Your task to perform on an android device: open app "Life360: Find Family & Friends" (install if not already installed) and enter user name: "gusts@gmail.com" and password: "assurers" Image 0: 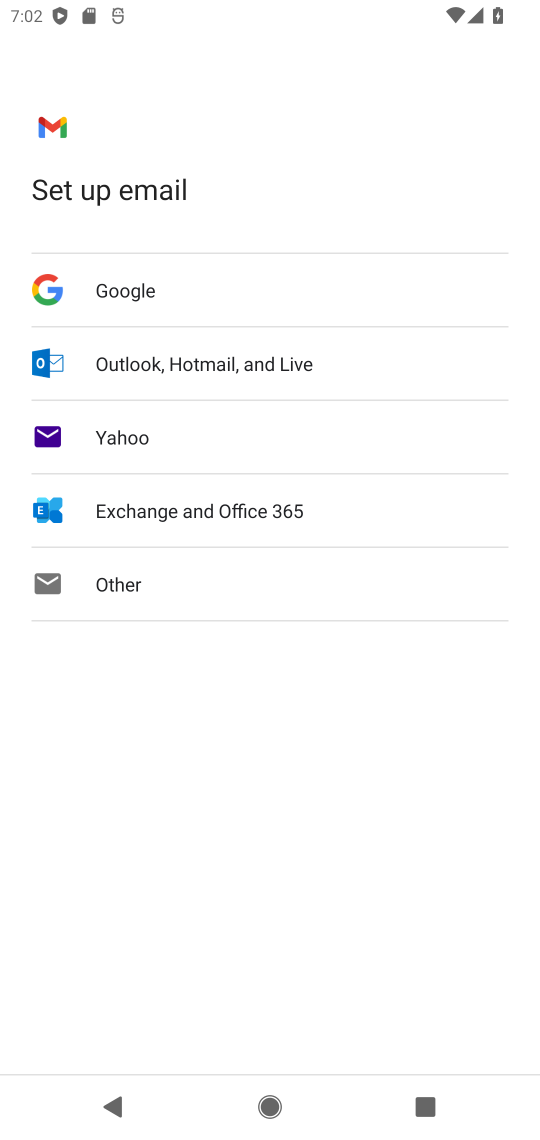
Step 0: press home button
Your task to perform on an android device: open app "Life360: Find Family & Friends" (install if not already installed) and enter user name: "gusts@gmail.com" and password: "assurers" Image 1: 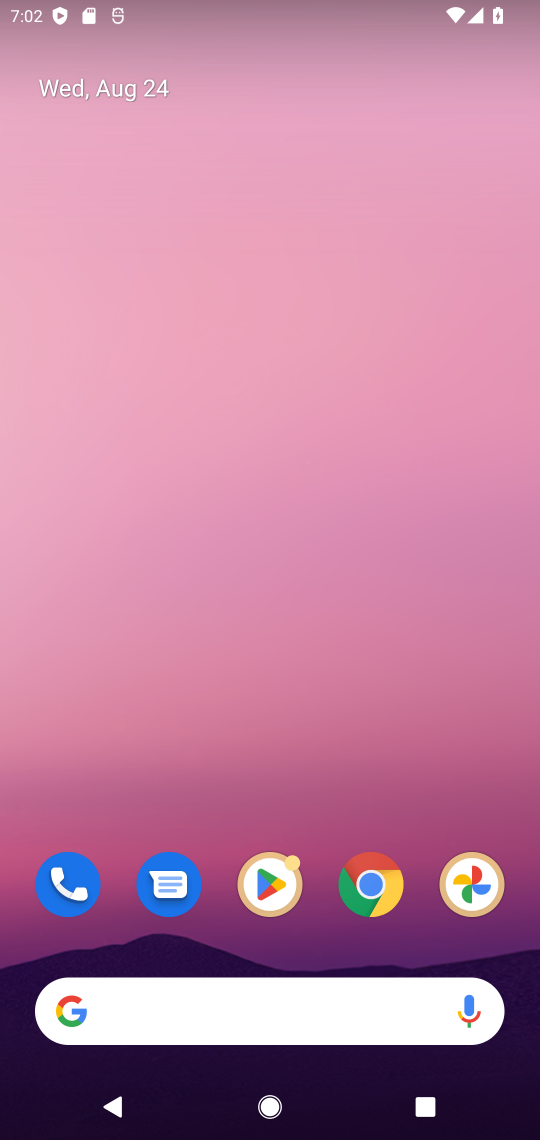
Step 1: click (282, 894)
Your task to perform on an android device: open app "Life360: Find Family & Friends" (install if not already installed) and enter user name: "gusts@gmail.com" and password: "assurers" Image 2: 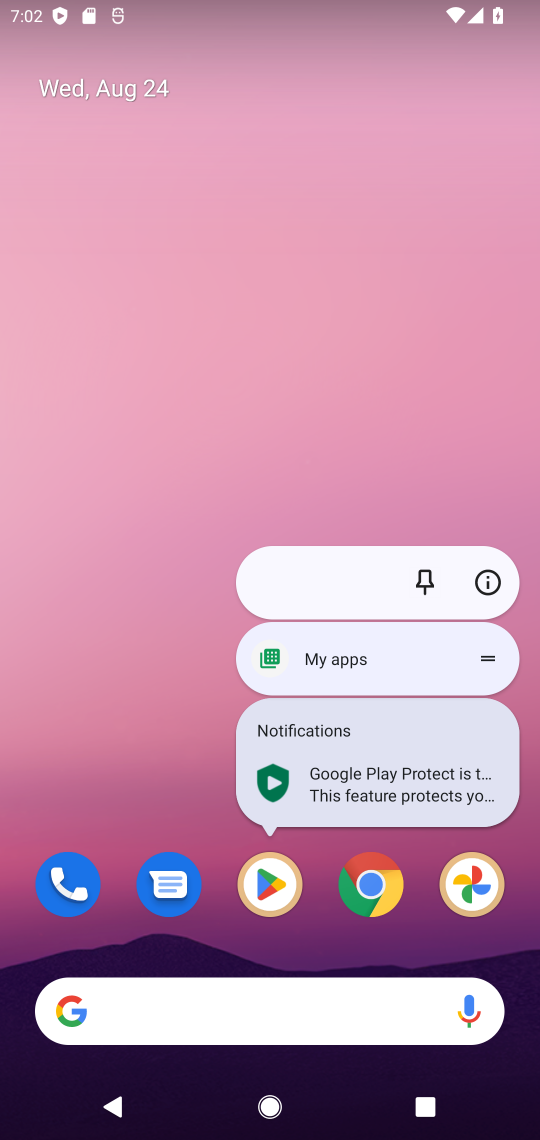
Step 2: click (293, 892)
Your task to perform on an android device: open app "Life360: Find Family & Friends" (install if not already installed) and enter user name: "gusts@gmail.com" and password: "assurers" Image 3: 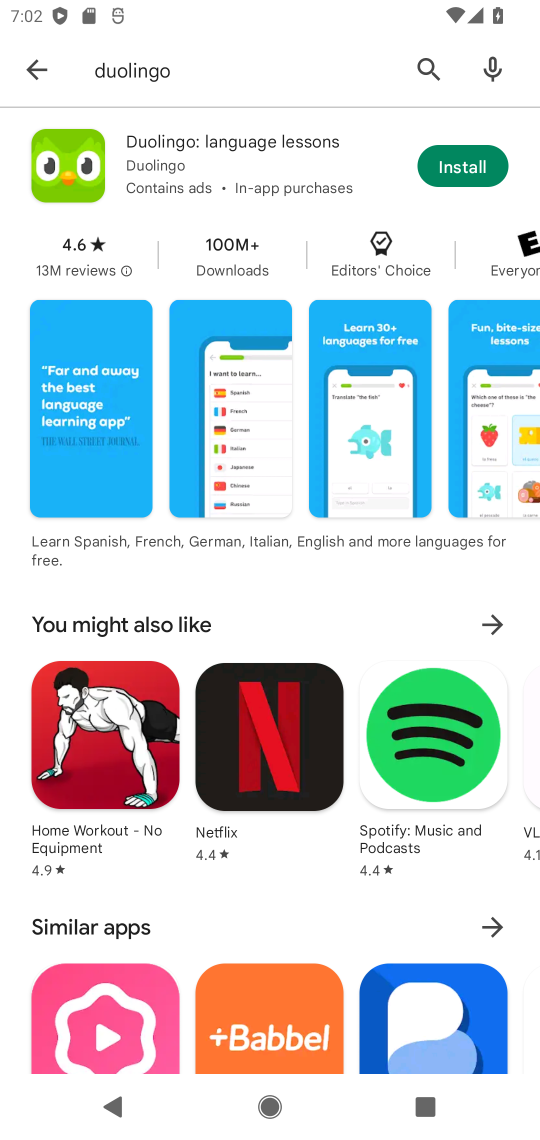
Step 3: click (427, 73)
Your task to perform on an android device: open app "Life360: Find Family & Friends" (install if not already installed) and enter user name: "gusts@gmail.com" and password: "assurers" Image 4: 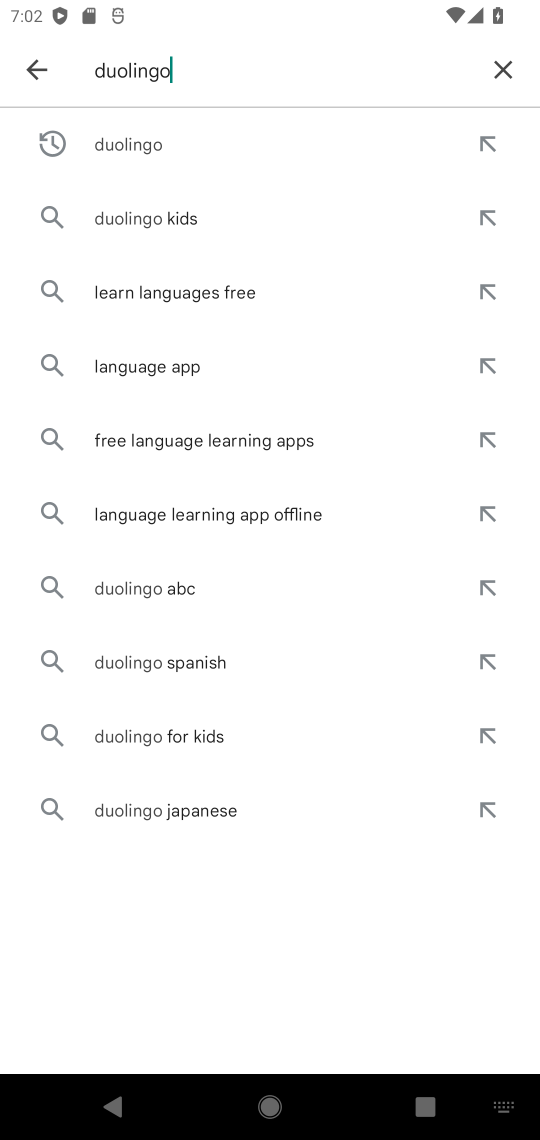
Step 4: click (506, 75)
Your task to perform on an android device: open app "Life360: Find Family & Friends" (install if not already installed) and enter user name: "gusts@gmail.com" and password: "assurers" Image 5: 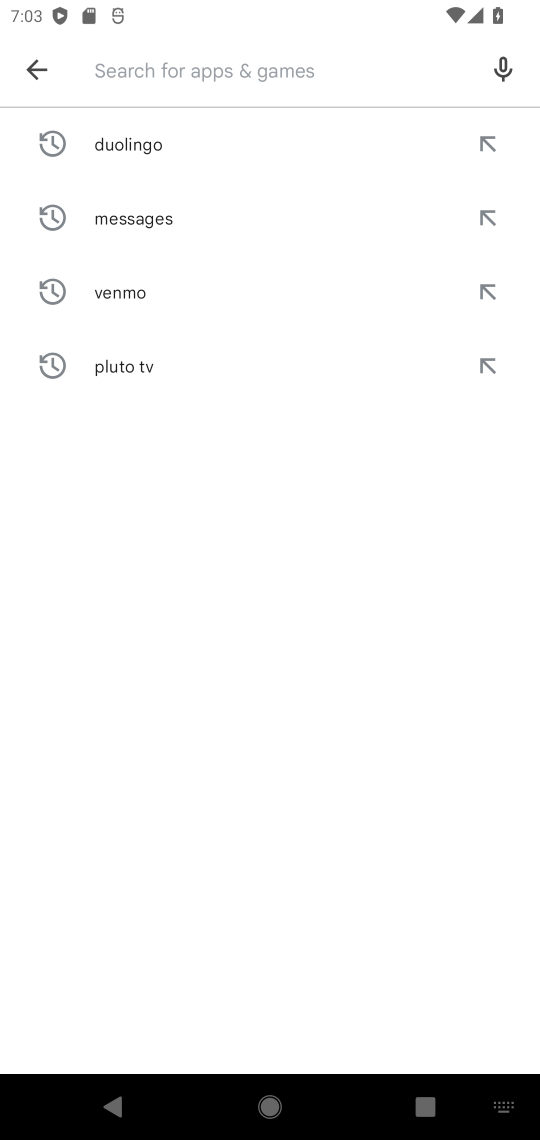
Step 5: type "life360"
Your task to perform on an android device: open app "Life360: Find Family & Friends" (install if not already installed) and enter user name: "gusts@gmail.com" and password: "assurers" Image 6: 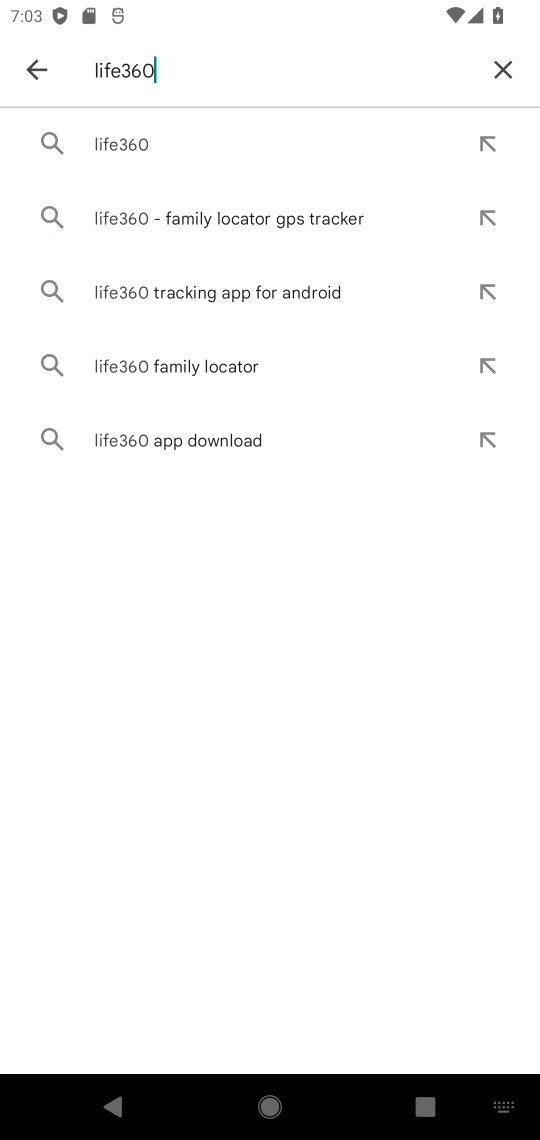
Step 6: click (181, 140)
Your task to perform on an android device: open app "Life360: Find Family & Friends" (install if not already installed) and enter user name: "gusts@gmail.com" and password: "assurers" Image 7: 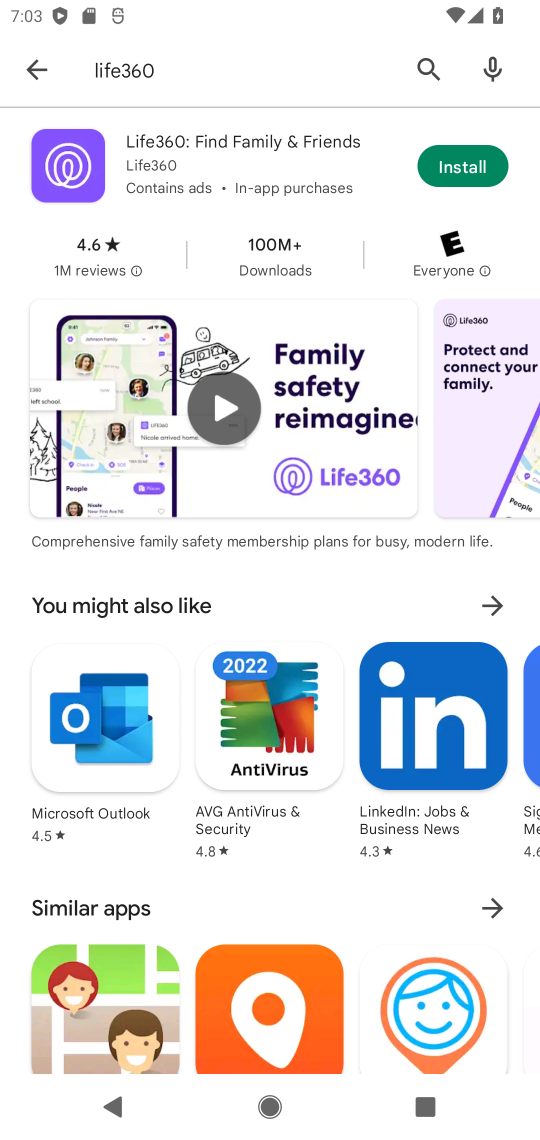
Step 7: click (484, 164)
Your task to perform on an android device: open app "Life360: Find Family & Friends" (install if not already installed) and enter user name: "gusts@gmail.com" and password: "assurers" Image 8: 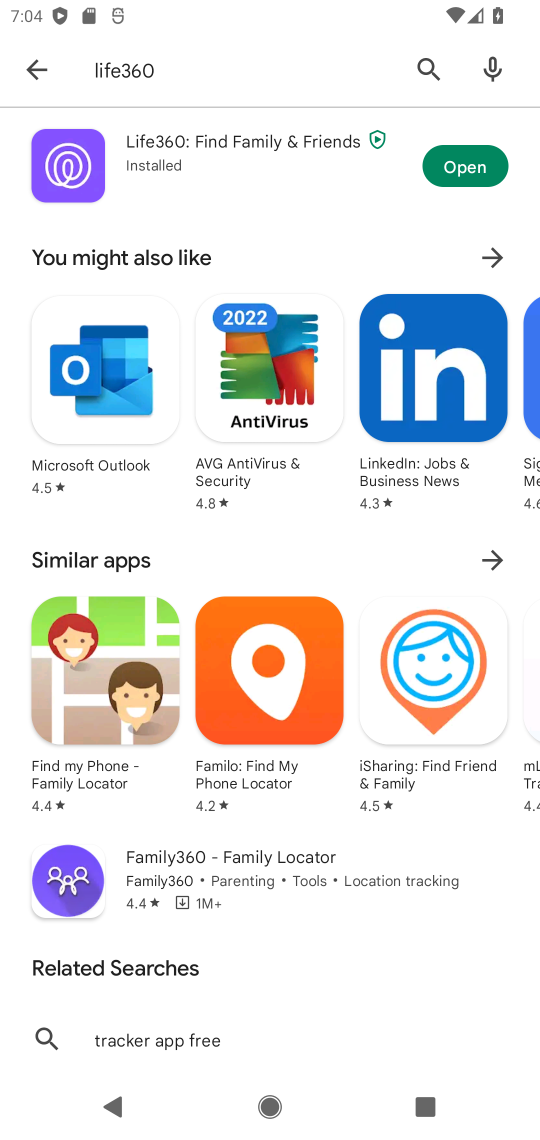
Step 8: click (456, 158)
Your task to perform on an android device: open app "Life360: Find Family & Friends" (install if not already installed) and enter user name: "gusts@gmail.com" and password: "assurers" Image 9: 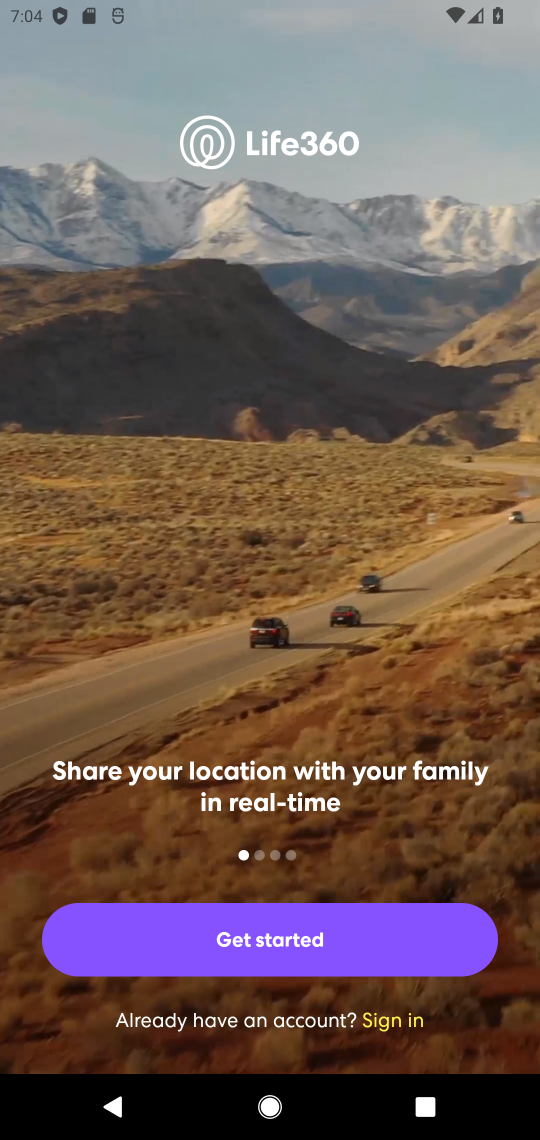
Step 9: click (383, 1022)
Your task to perform on an android device: open app "Life360: Find Family & Friends" (install if not already installed) and enter user name: "gusts@gmail.com" and password: "assurers" Image 10: 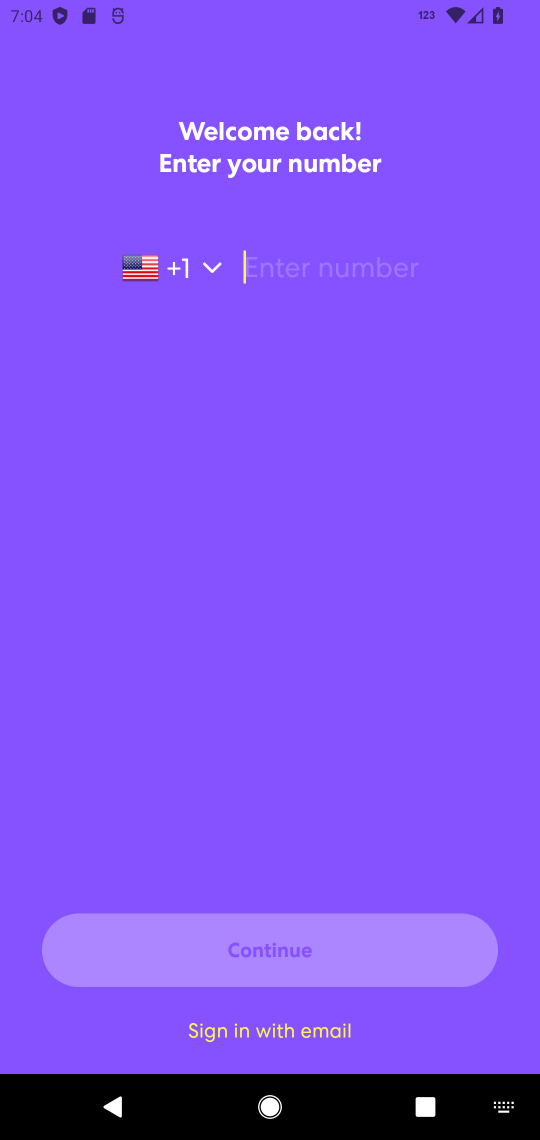
Step 10: click (306, 1040)
Your task to perform on an android device: open app "Life360: Find Family & Friends" (install if not already installed) and enter user name: "gusts@gmail.com" and password: "assurers" Image 11: 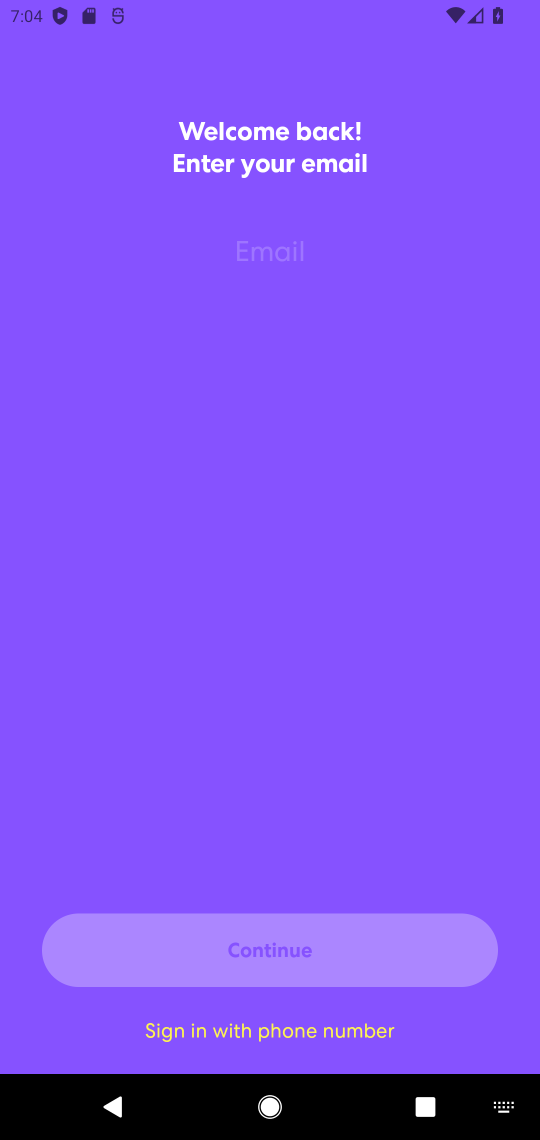
Step 11: click (294, 1044)
Your task to perform on an android device: open app "Life360: Find Family & Friends" (install if not already installed) and enter user name: "gusts@gmail.com" and password: "assurers" Image 12: 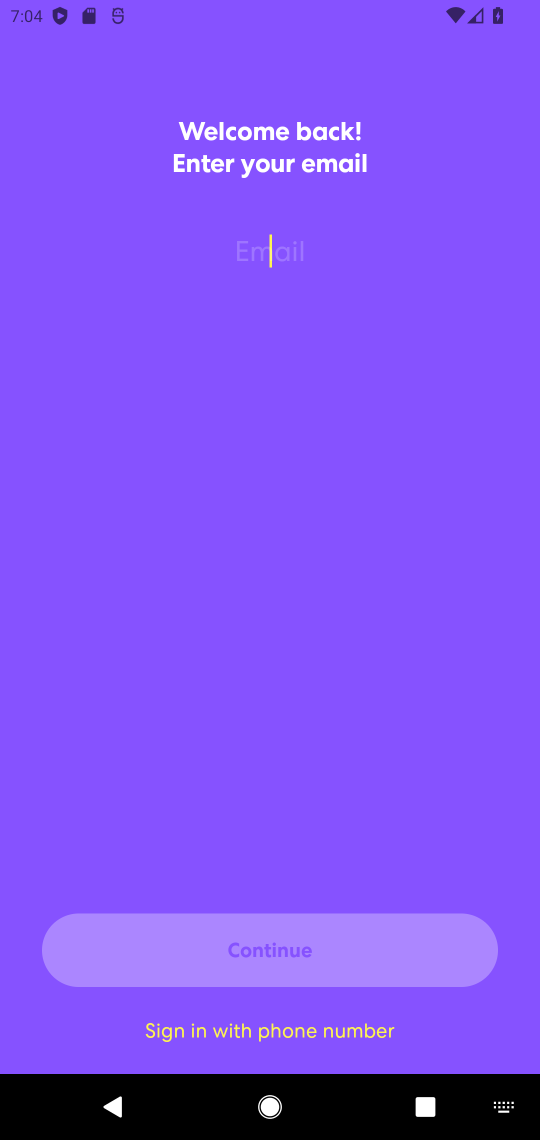
Step 12: click (294, 1044)
Your task to perform on an android device: open app "Life360: Find Family & Friends" (install if not already installed) and enter user name: "gusts@gmail.com" and password: "assurers" Image 13: 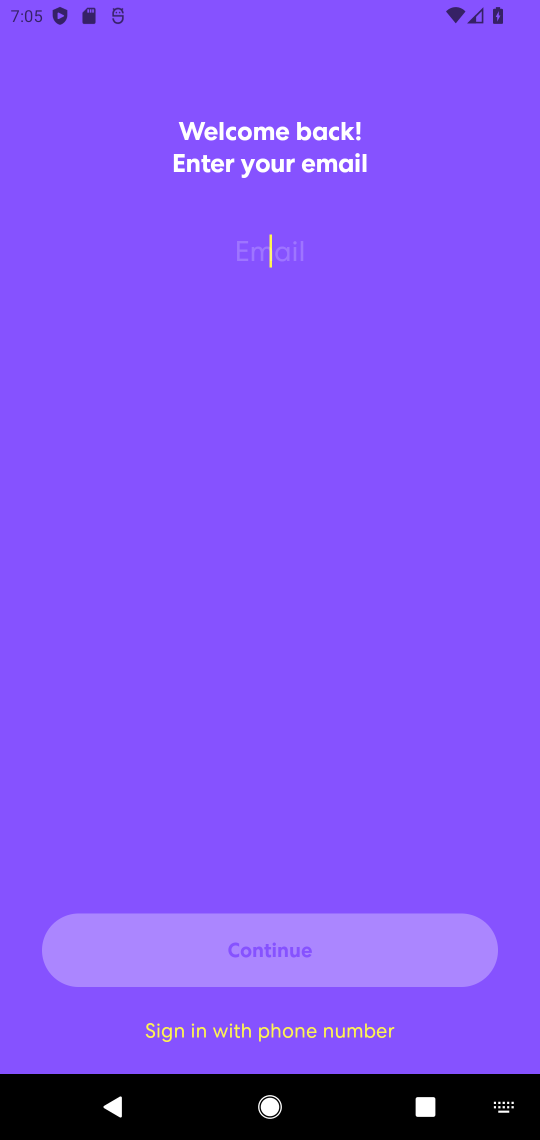
Step 13: type "gusts@gmail.com"
Your task to perform on an android device: open app "Life360: Find Family & Friends" (install if not already installed) and enter user name: "gusts@gmail.com" and password: "assurers" Image 14: 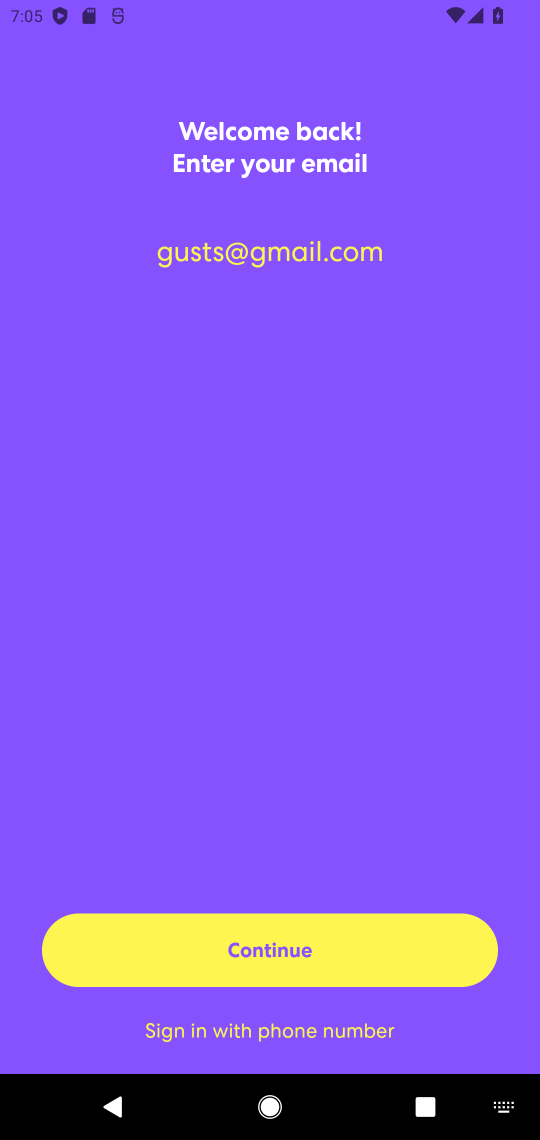
Step 14: click (351, 934)
Your task to perform on an android device: open app "Life360: Find Family & Friends" (install if not already installed) and enter user name: "gusts@gmail.com" and password: "assurers" Image 15: 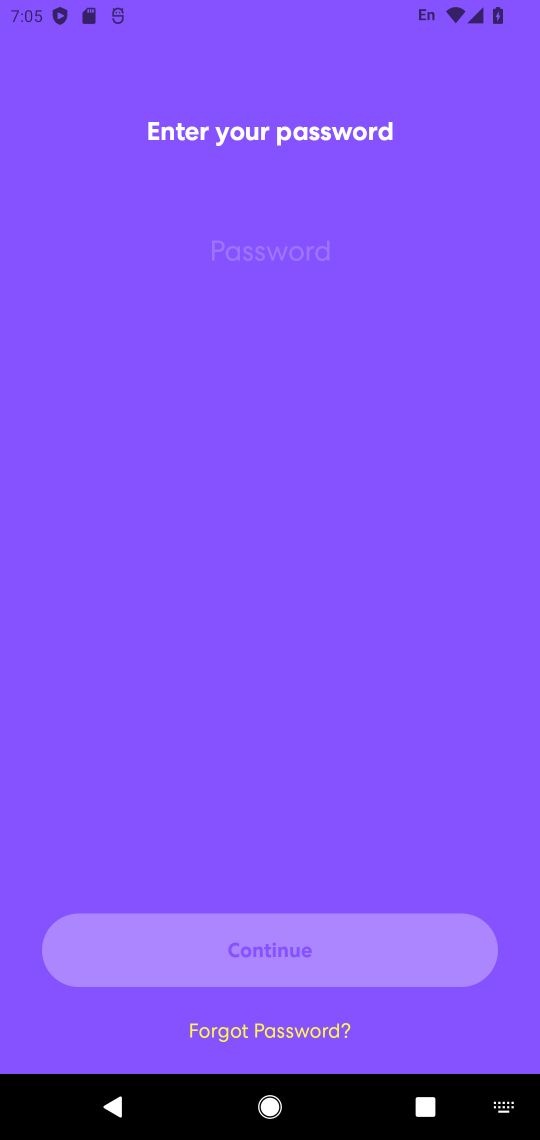
Step 15: type "assurers"
Your task to perform on an android device: open app "Life360: Find Family & Friends" (install if not already installed) and enter user name: "gusts@gmail.com" and password: "assurers" Image 16: 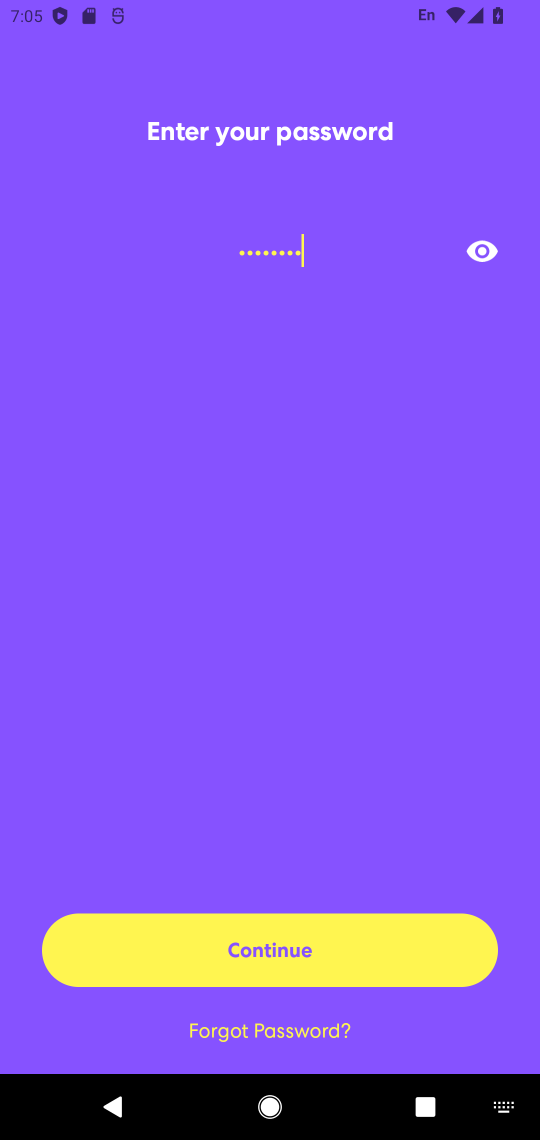
Step 16: task complete